Your task to perform on an android device: toggle wifi Image 0: 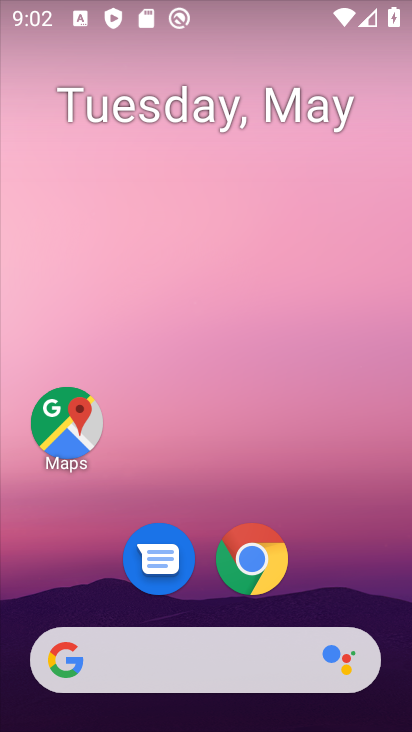
Step 0: drag from (204, 600) to (216, 185)
Your task to perform on an android device: toggle wifi Image 1: 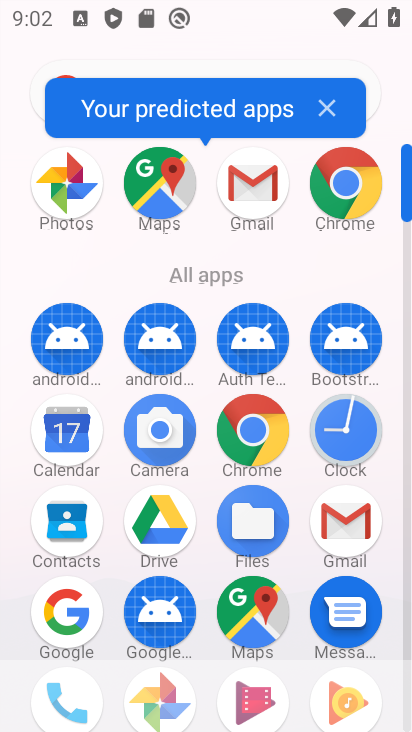
Step 1: drag from (125, 523) to (139, 195)
Your task to perform on an android device: toggle wifi Image 2: 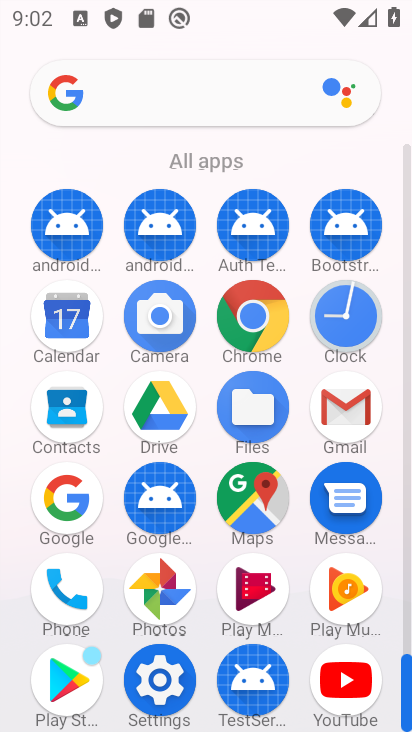
Step 2: click (158, 649)
Your task to perform on an android device: toggle wifi Image 3: 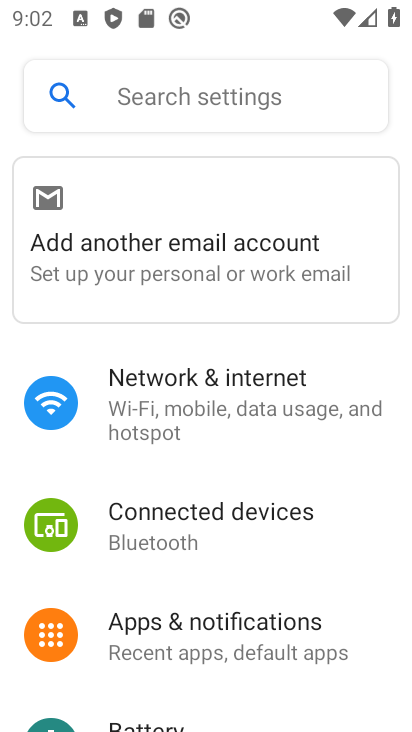
Step 3: click (210, 398)
Your task to perform on an android device: toggle wifi Image 4: 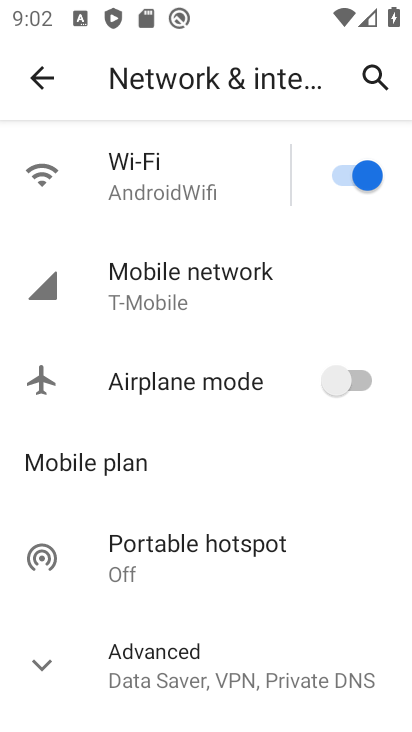
Step 4: click (335, 177)
Your task to perform on an android device: toggle wifi Image 5: 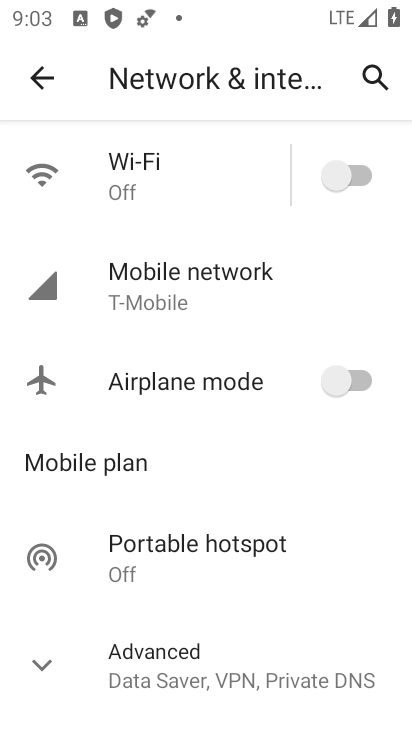
Step 5: task complete